Your task to perform on an android device: turn on sleep mode Image 0: 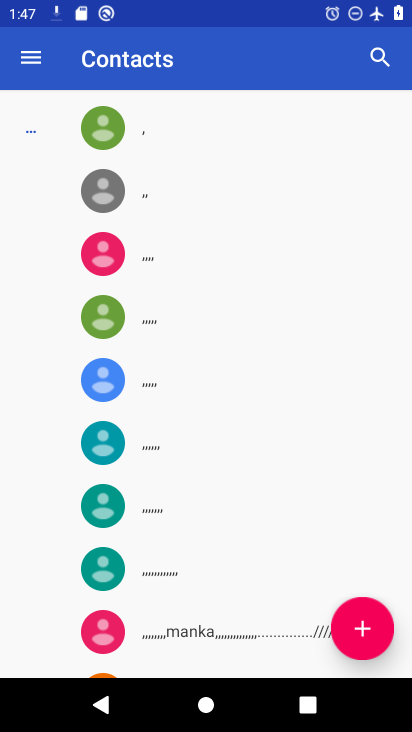
Step 0: press home button
Your task to perform on an android device: turn on sleep mode Image 1: 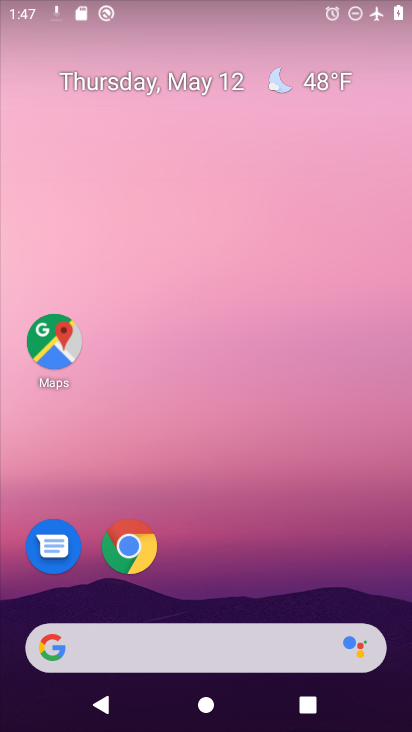
Step 1: drag from (234, 641) to (344, 219)
Your task to perform on an android device: turn on sleep mode Image 2: 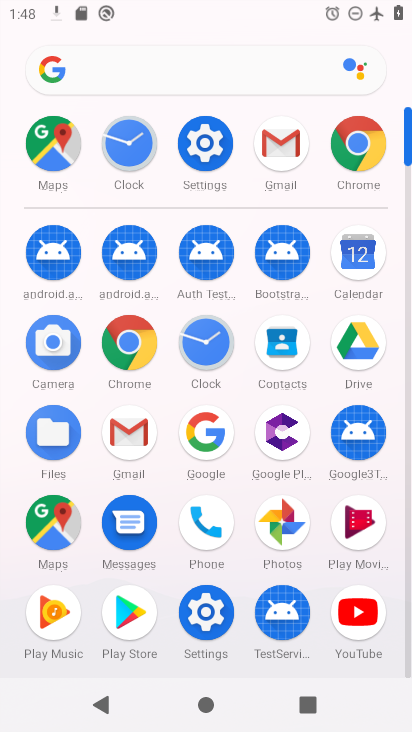
Step 2: click (199, 154)
Your task to perform on an android device: turn on sleep mode Image 3: 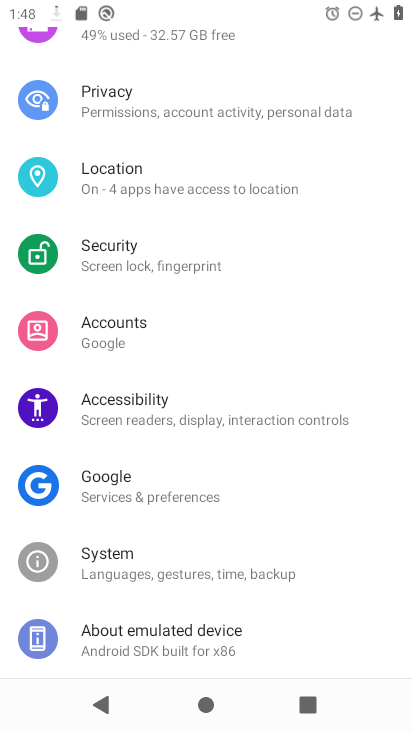
Step 3: drag from (282, 265) to (257, 491)
Your task to perform on an android device: turn on sleep mode Image 4: 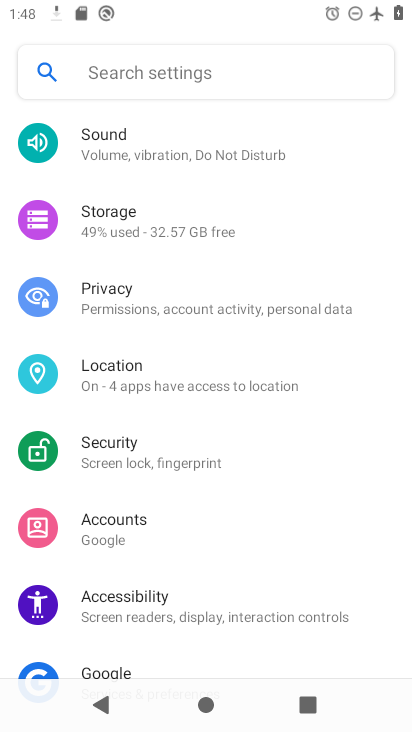
Step 4: drag from (254, 218) to (214, 448)
Your task to perform on an android device: turn on sleep mode Image 5: 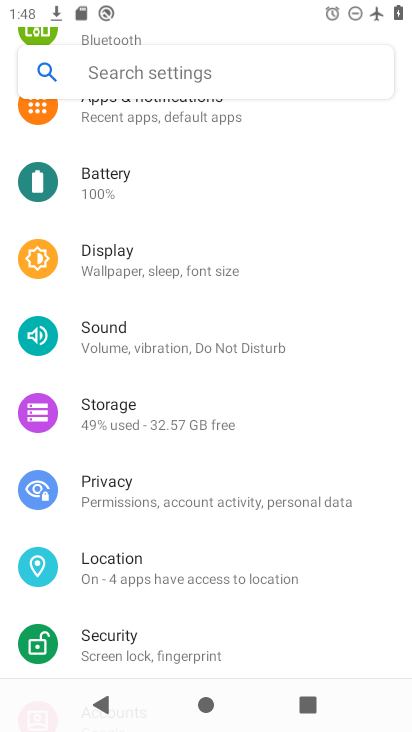
Step 5: click (171, 266)
Your task to perform on an android device: turn on sleep mode Image 6: 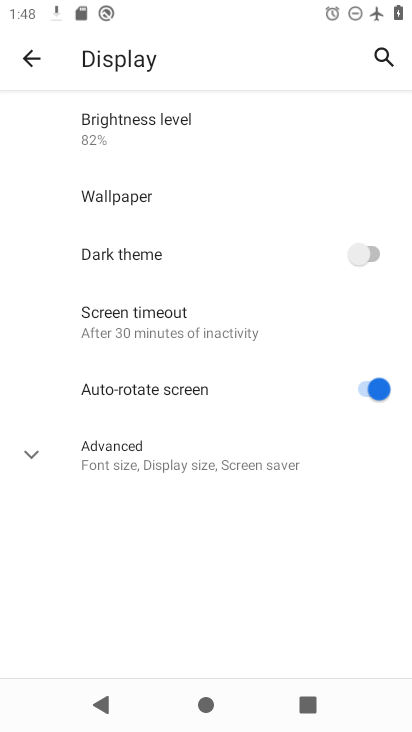
Step 6: task complete